Your task to perform on an android device: turn on showing notifications on the lock screen Image 0: 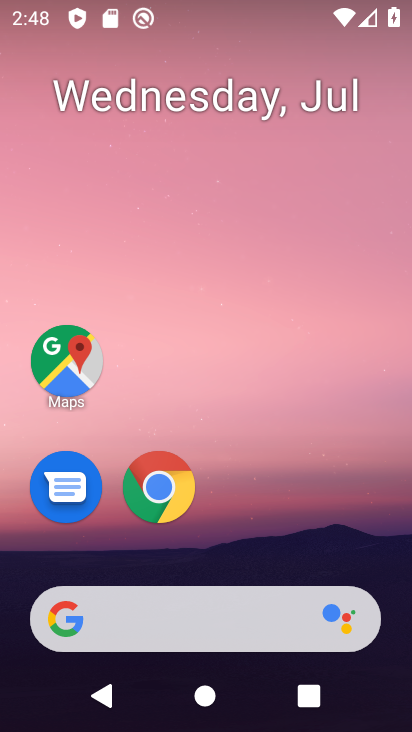
Step 0: drag from (364, 550) to (312, 43)
Your task to perform on an android device: turn on showing notifications on the lock screen Image 1: 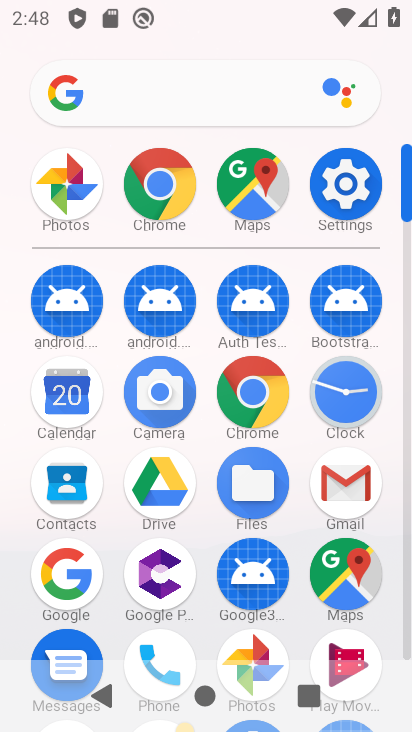
Step 1: click (361, 204)
Your task to perform on an android device: turn on showing notifications on the lock screen Image 2: 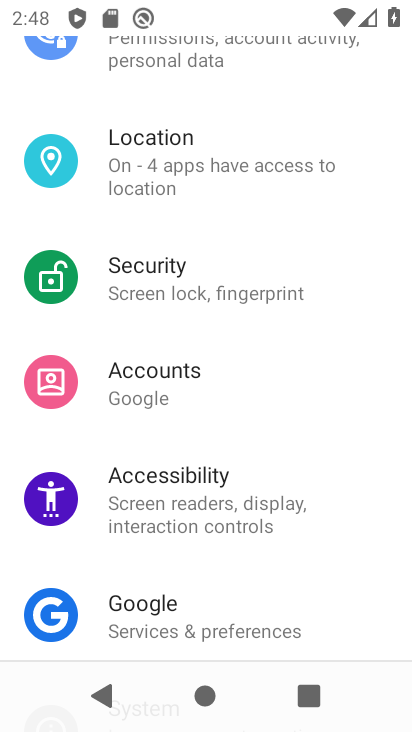
Step 2: drag from (288, 214) to (255, 564)
Your task to perform on an android device: turn on showing notifications on the lock screen Image 3: 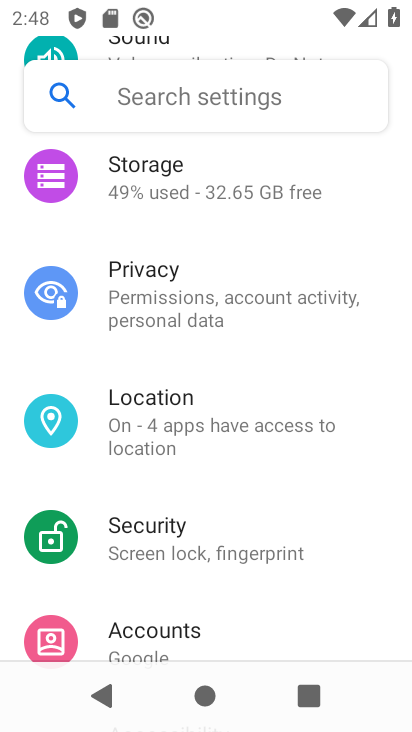
Step 3: click (242, 521)
Your task to perform on an android device: turn on showing notifications on the lock screen Image 4: 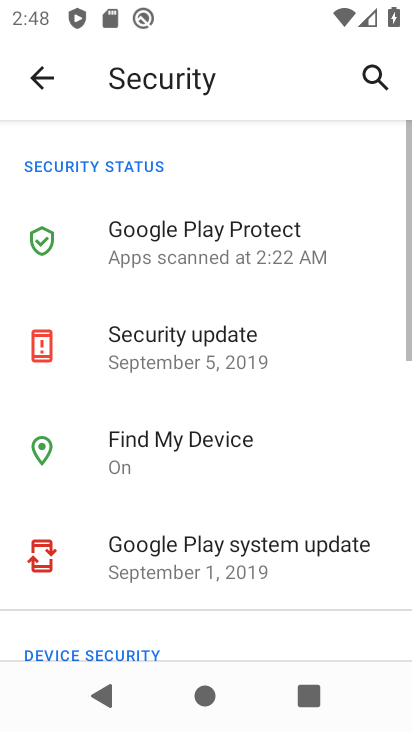
Step 4: click (60, 94)
Your task to perform on an android device: turn on showing notifications on the lock screen Image 5: 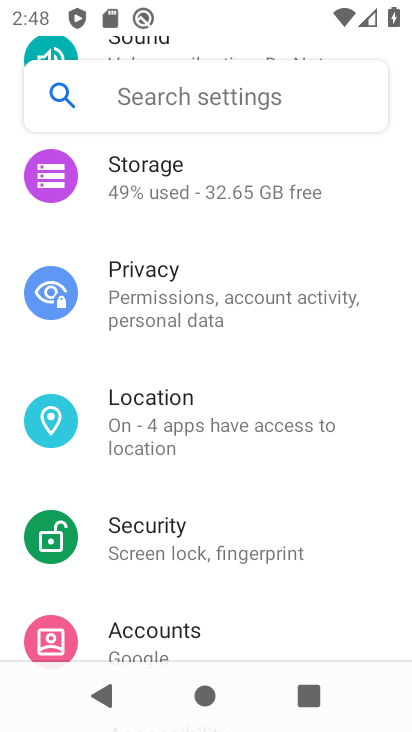
Step 5: drag from (289, 312) to (282, 697)
Your task to perform on an android device: turn on showing notifications on the lock screen Image 6: 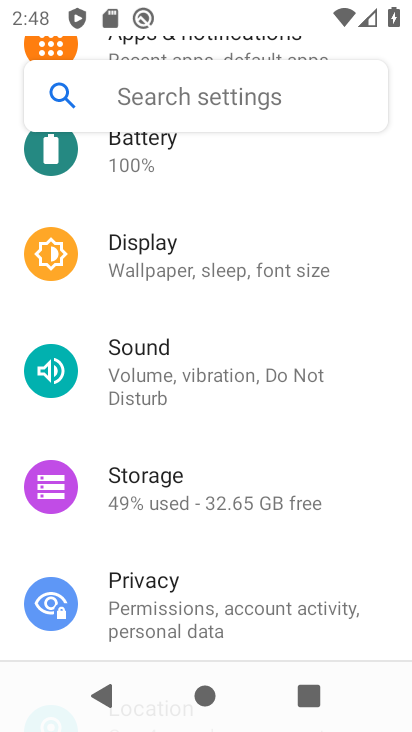
Step 6: drag from (238, 193) to (248, 548)
Your task to perform on an android device: turn on showing notifications on the lock screen Image 7: 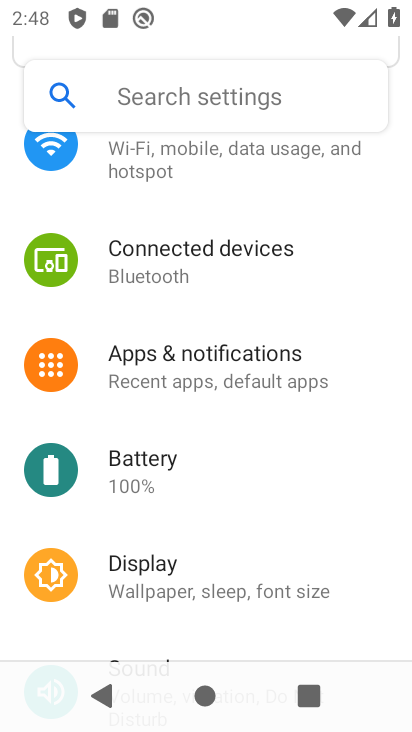
Step 7: click (240, 350)
Your task to perform on an android device: turn on showing notifications on the lock screen Image 8: 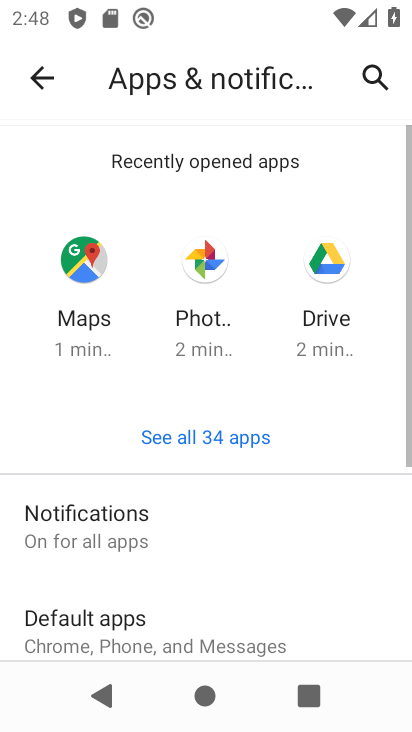
Step 8: click (171, 499)
Your task to perform on an android device: turn on showing notifications on the lock screen Image 9: 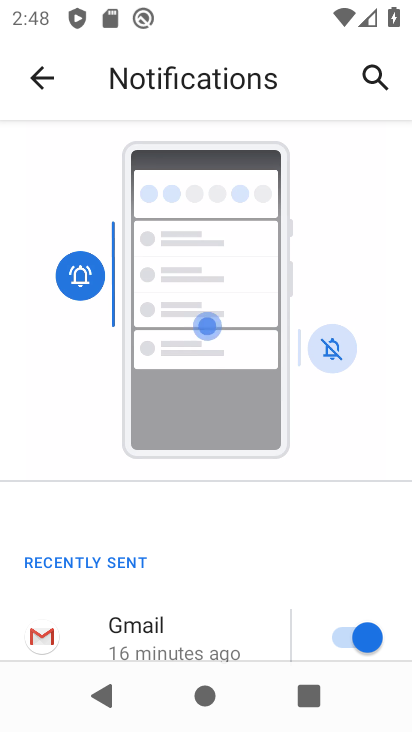
Step 9: drag from (296, 230) to (299, 160)
Your task to perform on an android device: turn on showing notifications on the lock screen Image 10: 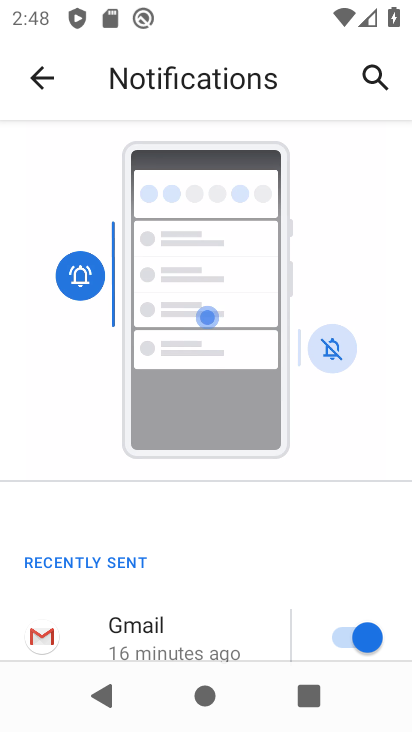
Step 10: click (290, 150)
Your task to perform on an android device: turn on showing notifications on the lock screen Image 11: 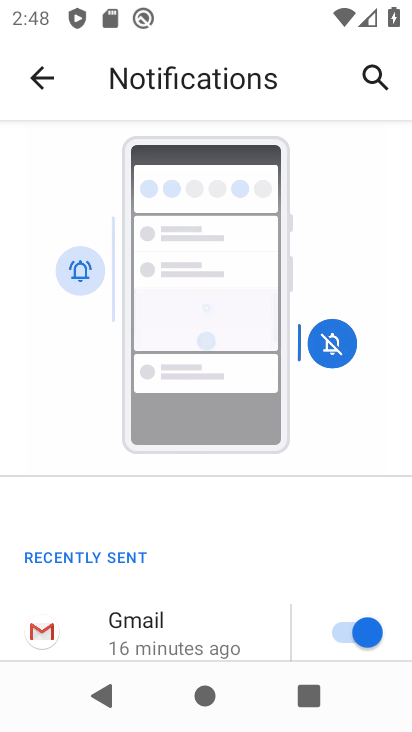
Step 11: drag from (288, 610) to (281, 140)
Your task to perform on an android device: turn on showing notifications on the lock screen Image 12: 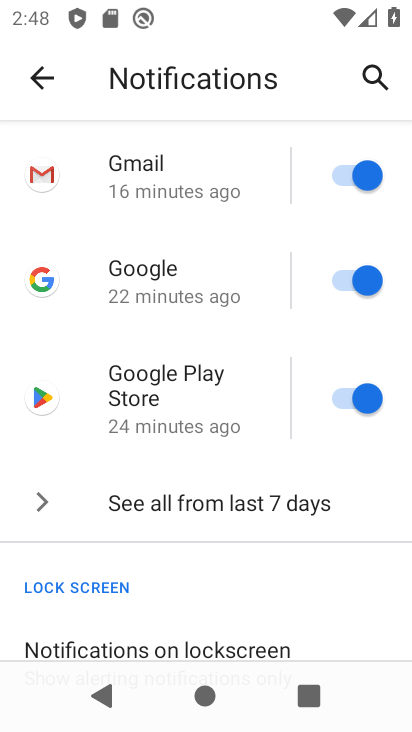
Step 12: click (270, 641)
Your task to perform on an android device: turn on showing notifications on the lock screen Image 13: 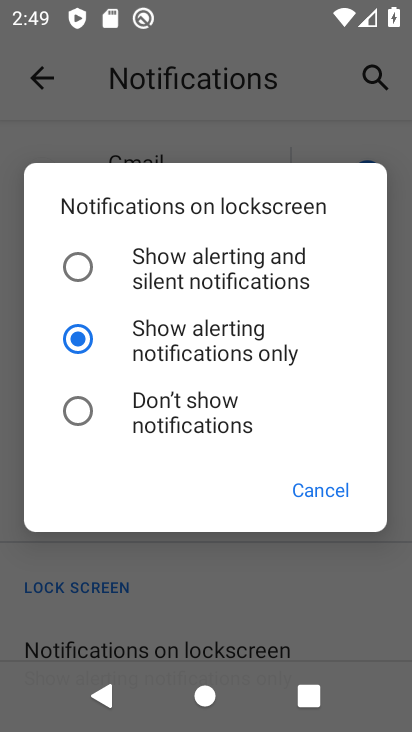
Step 13: task complete